Your task to perform on an android device: What is the news today? Image 0: 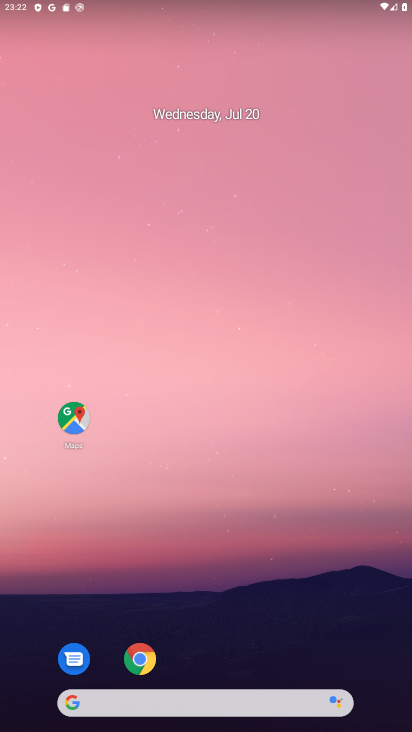
Step 0: drag from (3, 292) to (403, 303)
Your task to perform on an android device: What is the news today? Image 1: 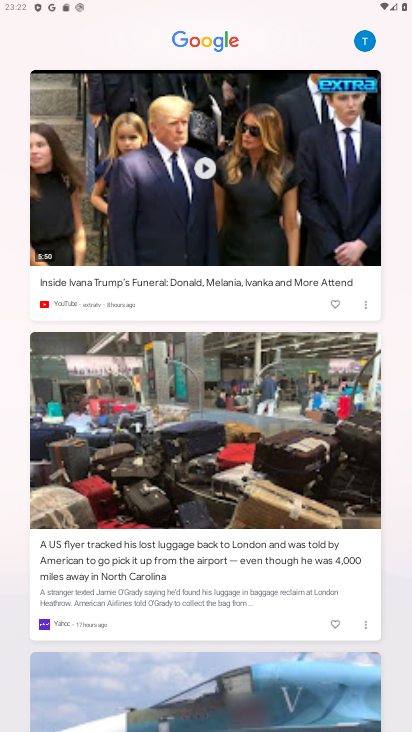
Step 1: task complete